Your task to perform on an android device: Open eBay Image 0: 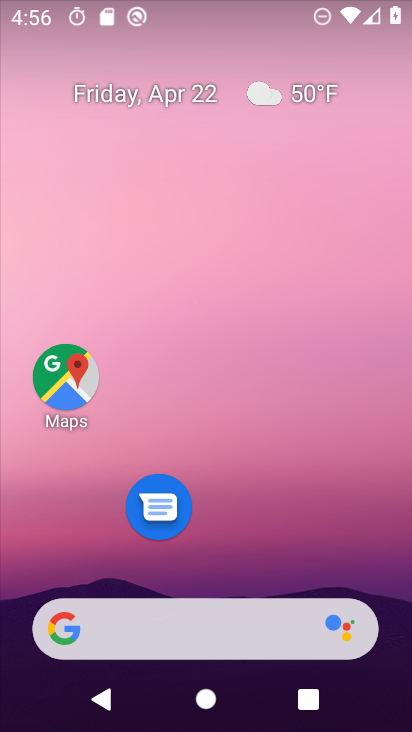
Step 0: drag from (297, 65) to (270, 173)
Your task to perform on an android device: Open eBay Image 1: 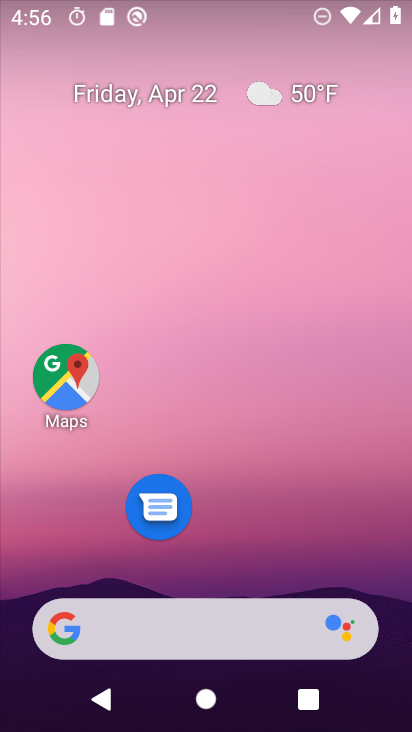
Step 1: drag from (208, 551) to (245, 115)
Your task to perform on an android device: Open eBay Image 2: 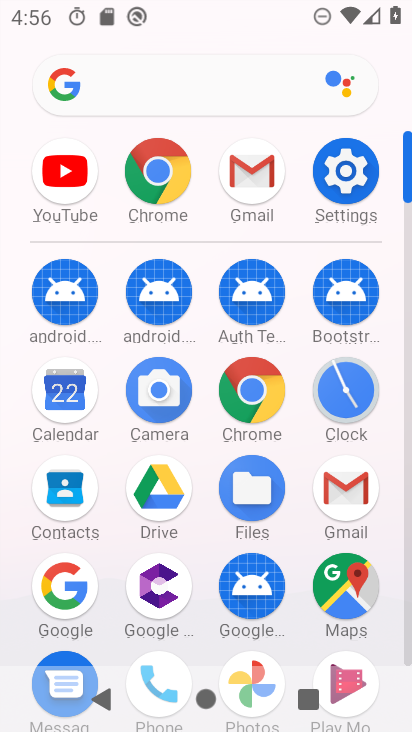
Step 2: click (164, 93)
Your task to perform on an android device: Open eBay Image 3: 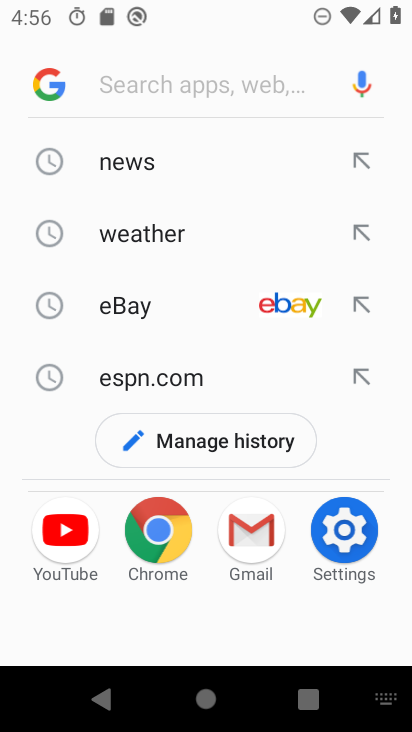
Step 3: type "ebay"
Your task to perform on an android device: Open eBay Image 4: 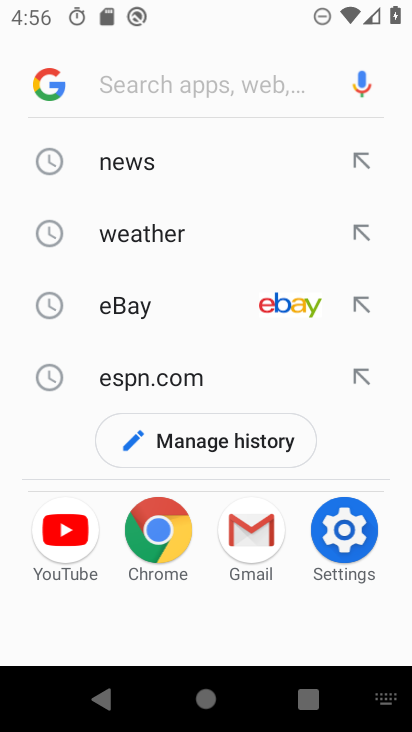
Step 4: click (137, 300)
Your task to perform on an android device: Open eBay Image 5: 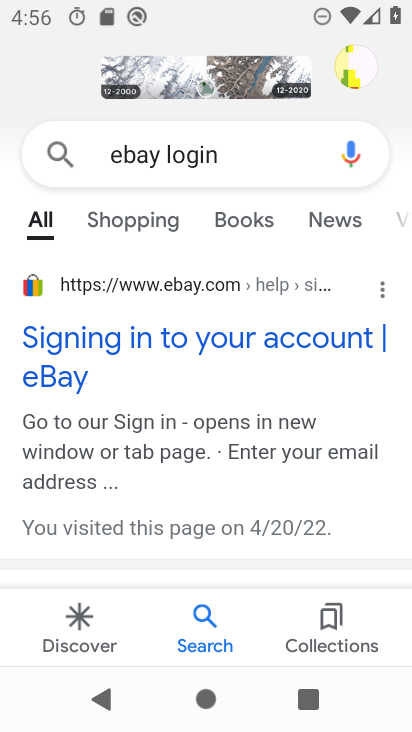
Step 5: click (108, 356)
Your task to perform on an android device: Open eBay Image 6: 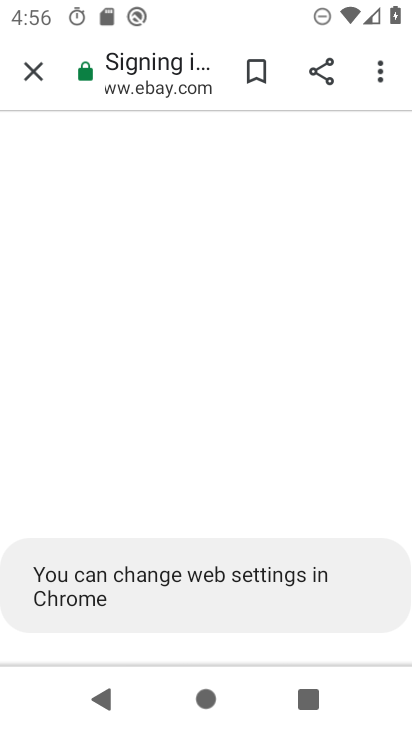
Step 6: task complete